Your task to perform on an android device: turn off sleep mode Image 0: 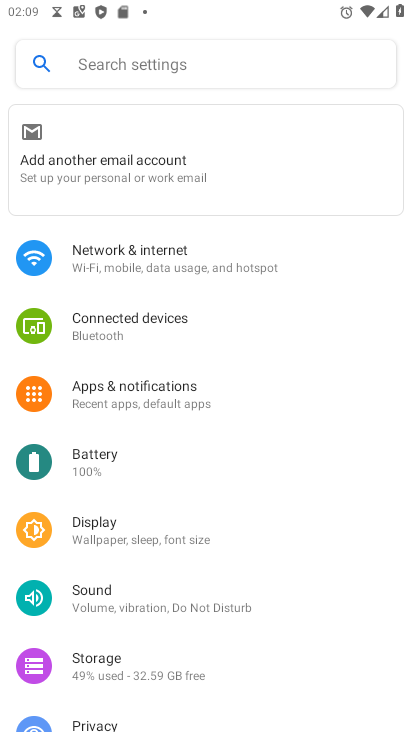
Step 0: press home button
Your task to perform on an android device: turn off sleep mode Image 1: 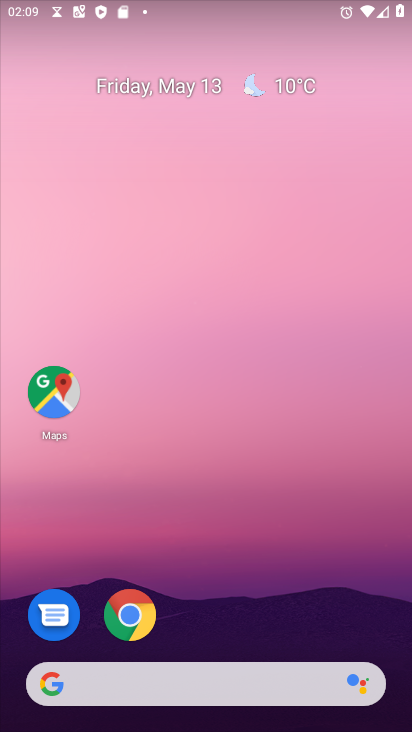
Step 1: drag from (184, 397) to (78, 81)
Your task to perform on an android device: turn off sleep mode Image 2: 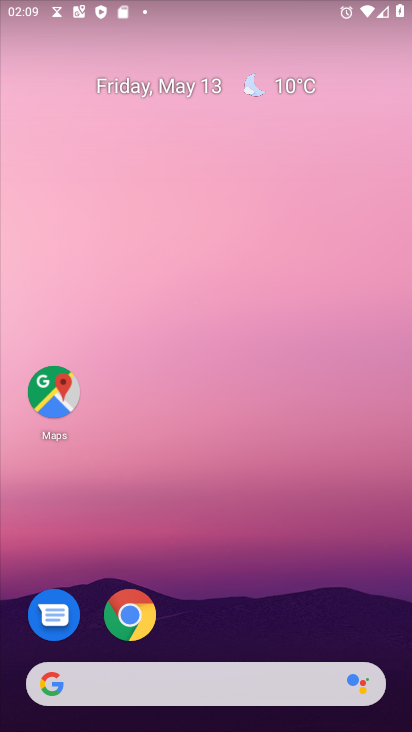
Step 2: drag from (226, 613) to (61, 49)
Your task to perform on an android device: turn off sleep mode Image 3: 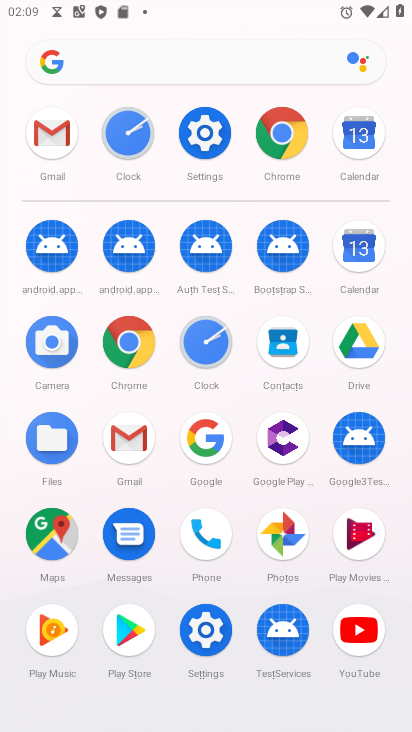
Step 3: click (199, 136)
Your task to perform on an android device: turn off sleep mode Image 4: 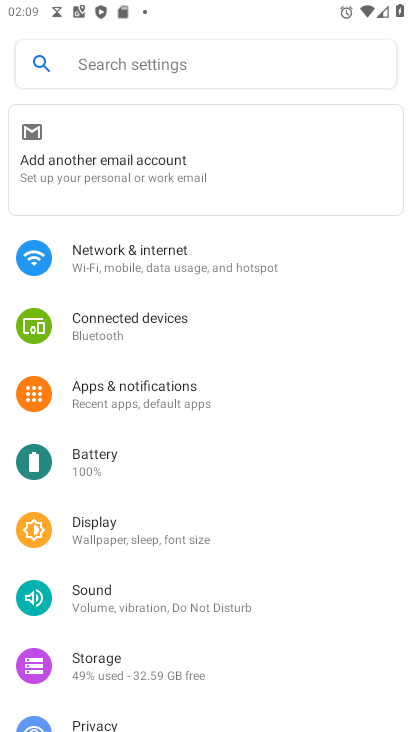
Step 4: click (167, 534)
Your task to perform on an android device: turn off sleep mode Image 5: 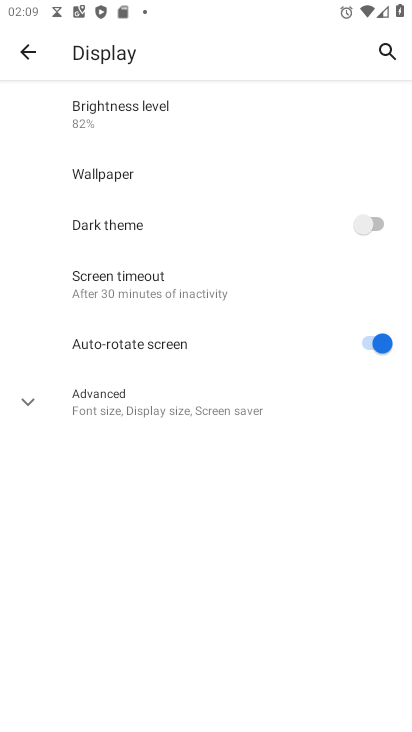
Step 5: click (139, 414)
Your task to perform on an android device: turn off sleep mode Image 6: 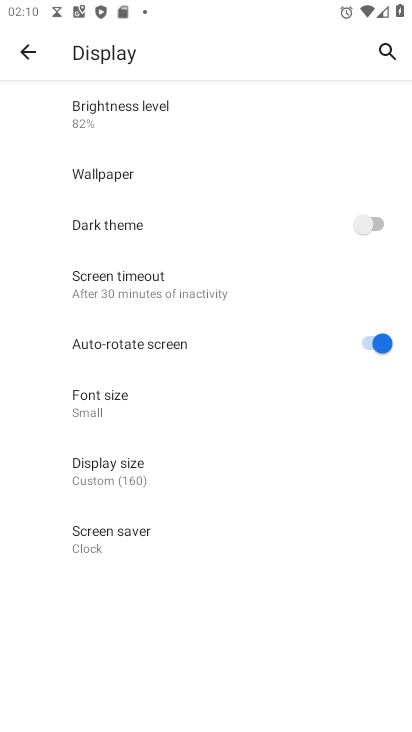
Step 6: task complete